Your task to perform on an android device: turn on sleep mode Image 0: 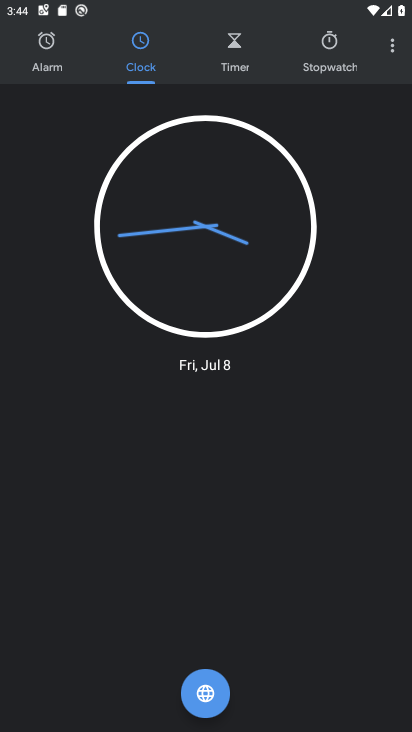
Step 0: press home button
Your task to perform on an android device: turn on sleep mode Image 1: 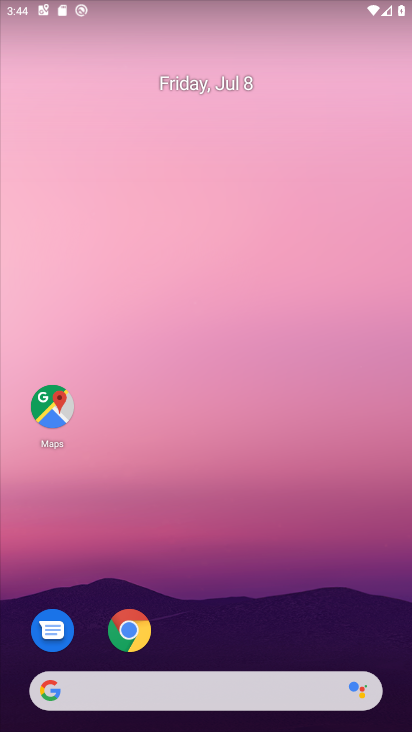
Step 1: drag from (284, 617) to (285, 84)
Your task to perform on an android device: turn on sleep mode Image 2: 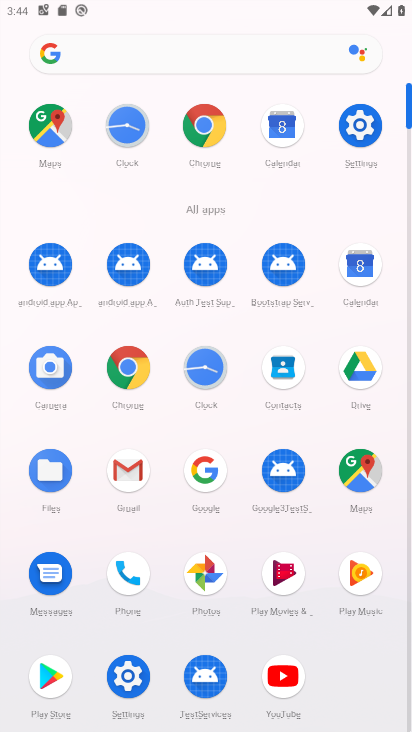
Step 2: click (361, 122)
Your task to perform on an android device: turn on sleep mode Image 3: 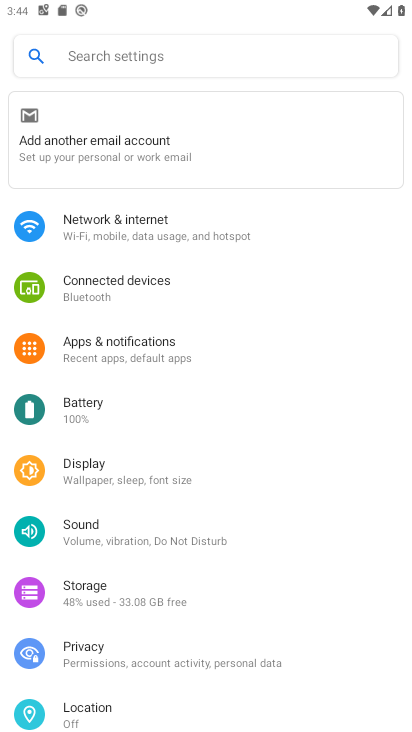
Step 3: click (125, 470)
Your task to perform on an android device: turn on sleep mode Image 4: 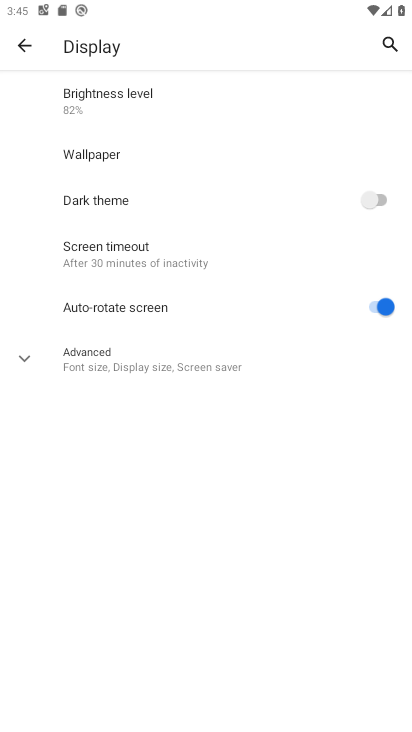
Step 4: click (126, 254)
Your task to perform on an android device: turn on sleep mode Image 5: 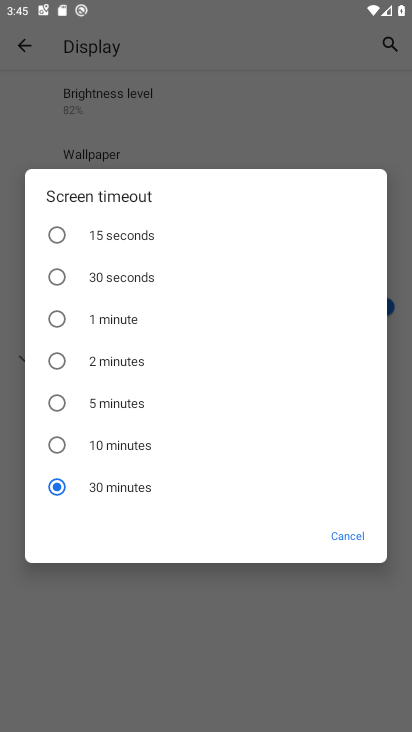
Step 5: task complete